Your task to perform on an android device: Clear all items from cart on target. Search for "corsair k70" on target, select the first entry, add it to the cart, then select checkout. Image 0: 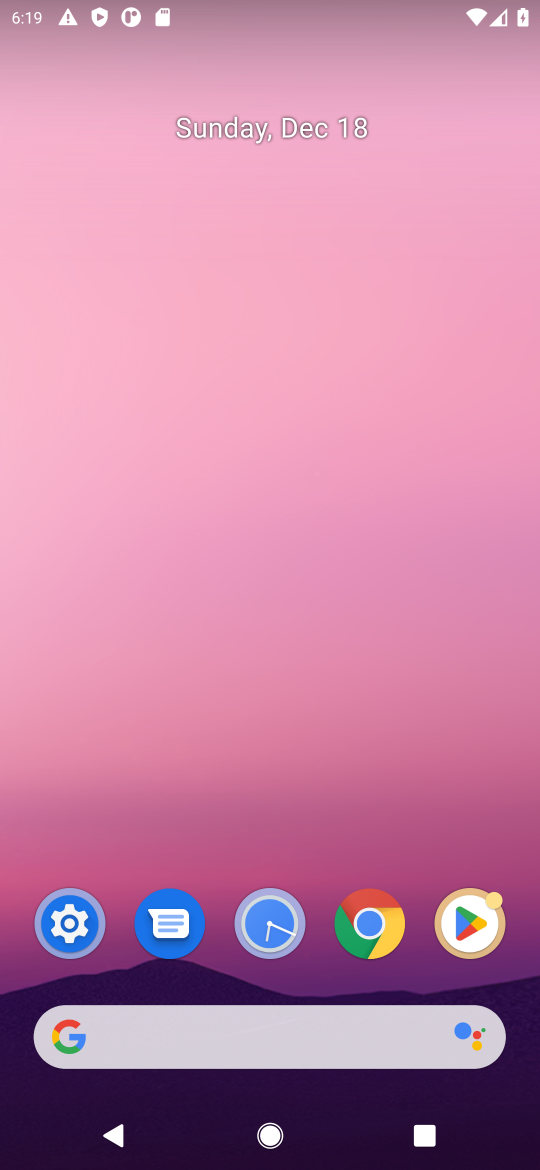
Step 0: click (129, 1031)
Your task to perform on an android device: Clear all items from cart on target. Search for "corsair k70" on target, select the first entry, add it to the cart, then select checkout. Image 1: 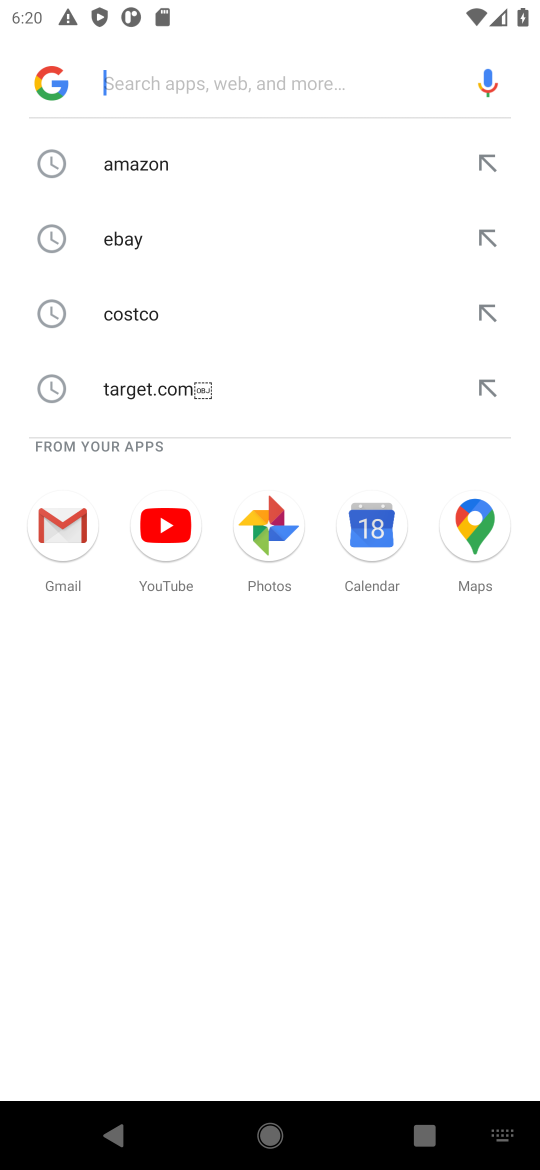
Step 1: type "target"
Your task to perform on an android device: Clear all items from cart on target. Search for "corsair k70" on target, select the first entry, add it to the cart, then select checkout. Image 2: 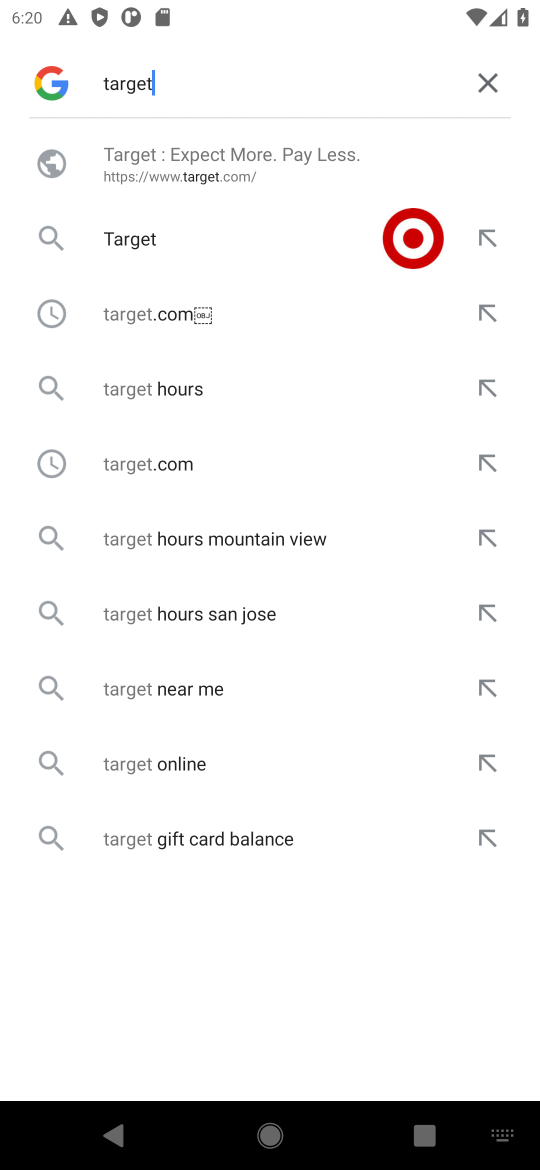
Step 2: press enter
Your task to perform on an android device: Clear all items from cart on target. Search for "corsair k70" on target, select the first entry, add it to the cart, then select checkout. Image 3: 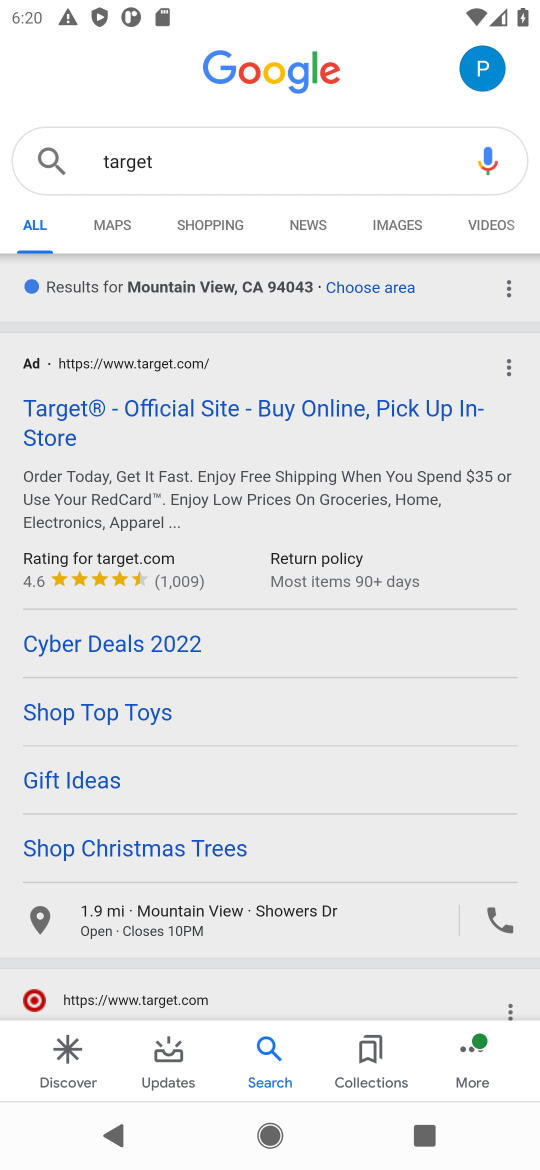
Step 3: click (118, 399)
Your task to perform on an android device: Clear all items from cart on target. Search for "corsair k70" on target, select the first entry, add it to the cart, then select checkout. Image 4: 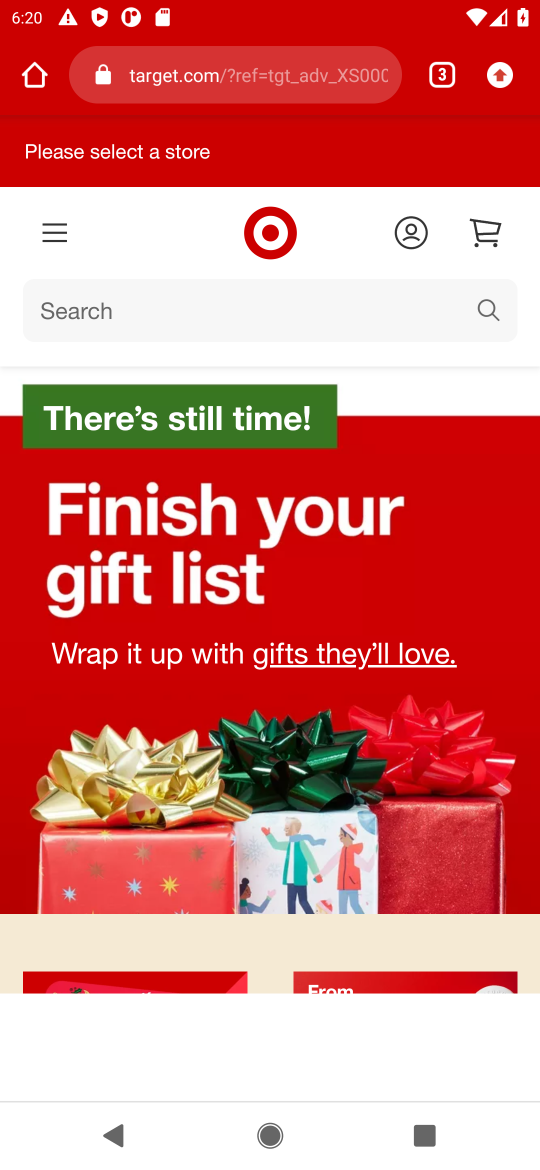
Step 4: click (490, 224)
Your task to perform on an android device: Clear all items from cart on target. Search for "corsair k70" on target, select the first entry, add it to the cart, then select checkout. Image 5: 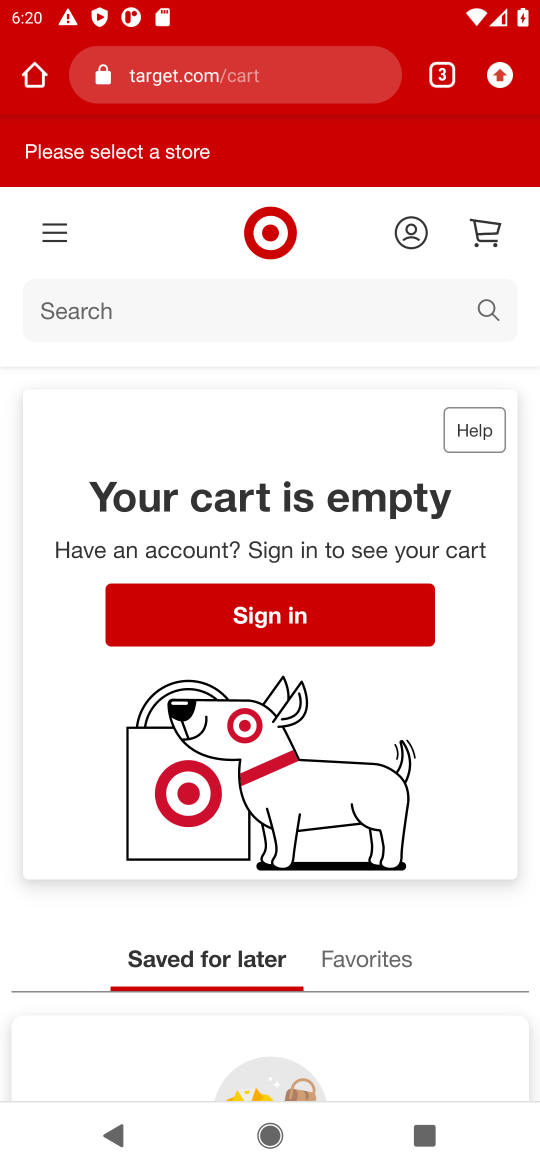
Step 5: click (95, 294)
Your task to perform on an android device: Clear all items from cart on target. Search for "corsair k70" on target, select the first entry, add it to the cart, then select checkout. Image 6: 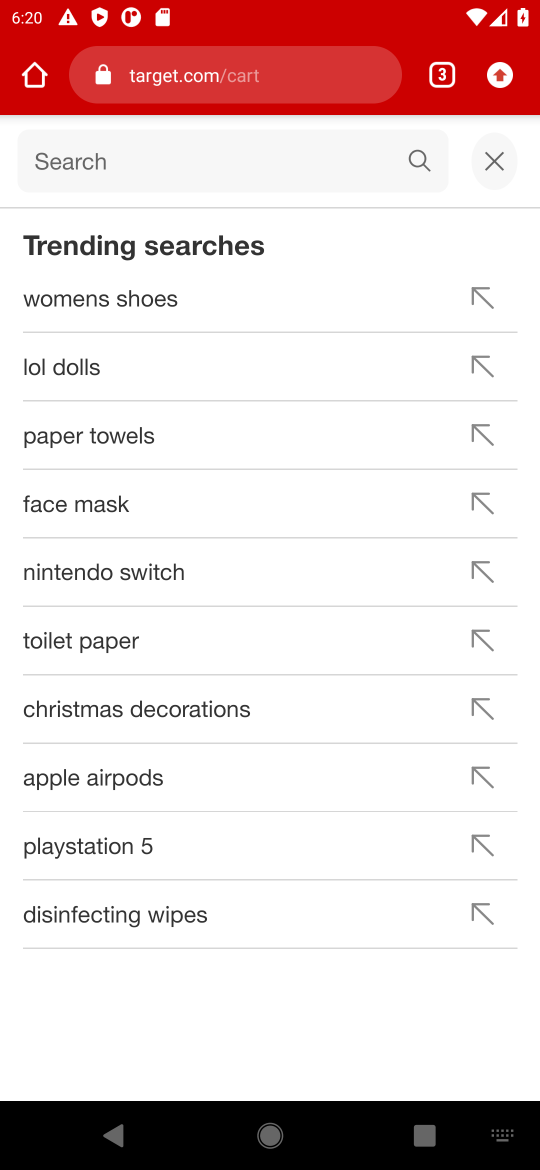
Step 6: type "corsair k70"
Your task to perform on an android device: Clear all items from cart on target. Search for "corsair k70" on target, select the first entry, add it to the cart, then select checkout. Image 7: 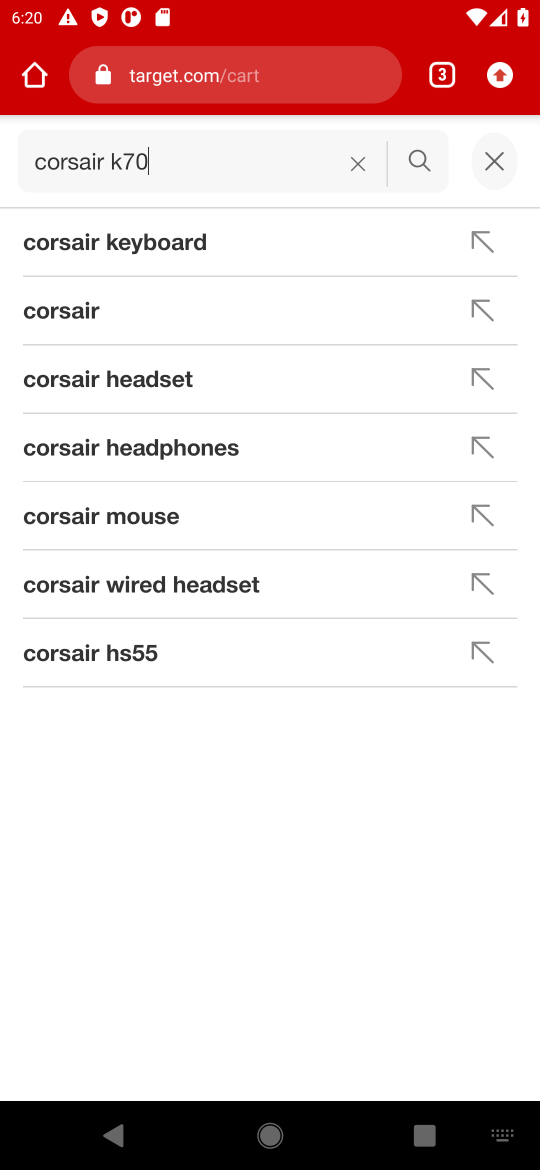
Step 7: press enter
Your task to perform on an android device: Clear all items from cart on target. Search for "corsair k70" on target, select the first entry, add it to the cart, then select checkout. Image 8: 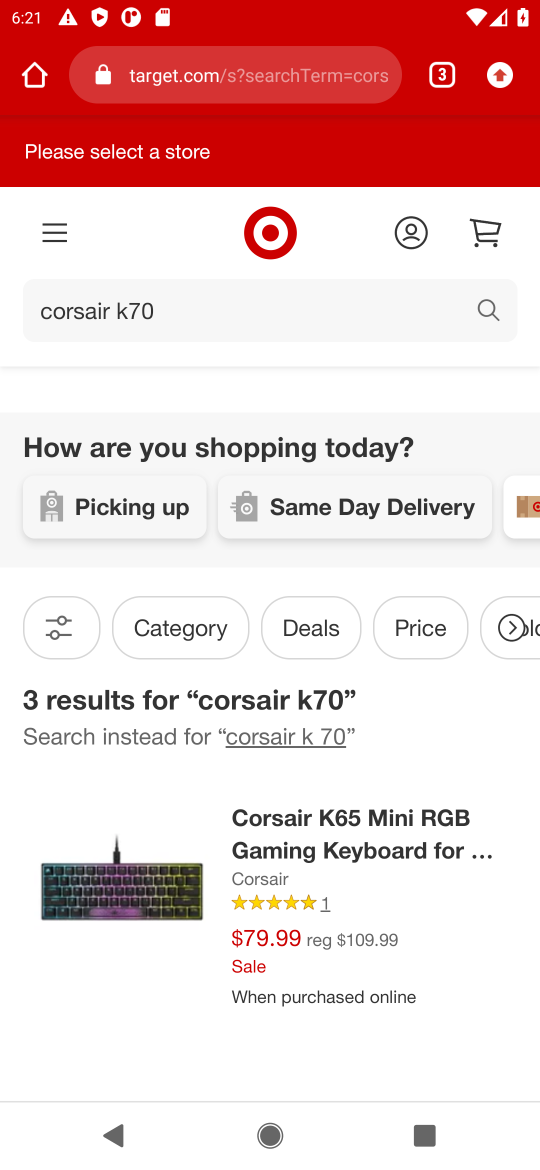
Step 8: task complete